Your task to perform on an android device: Find coffee shops on Maps Image 0: 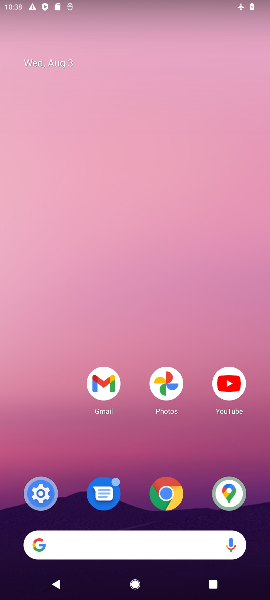
Step 0: click (25, 502)
Your task to perform on an android device: Find coffee shops on Maps Image 1: 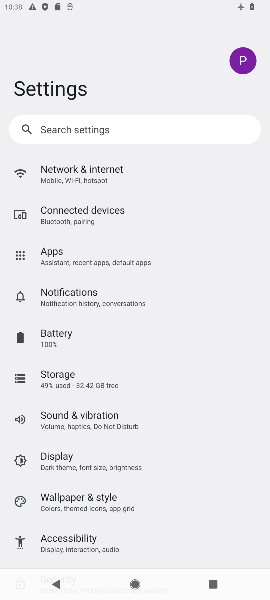
Step 1: click (98, 425)
Your task to perform on an android device: Find coffee shops on Maps Image 2: 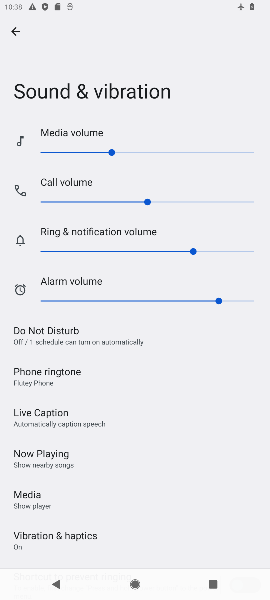
Step 2: task complete